Your task to perform on an android device: all mails in gmail Image 0: 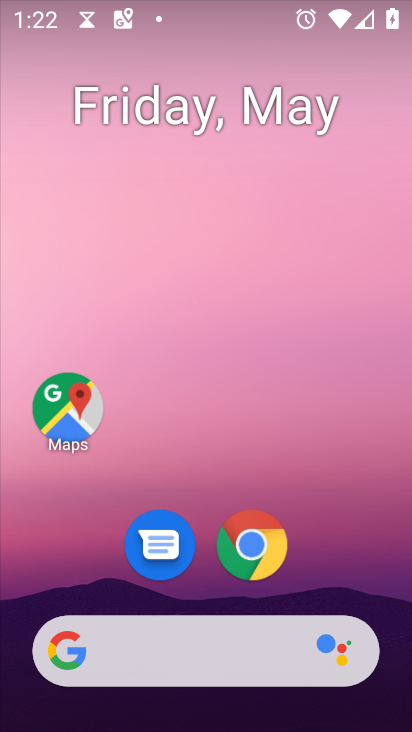
Step 0: drag from (323, 576) to (328, 133)
Your task to perform on an android device: all mails in gmail Image 1: 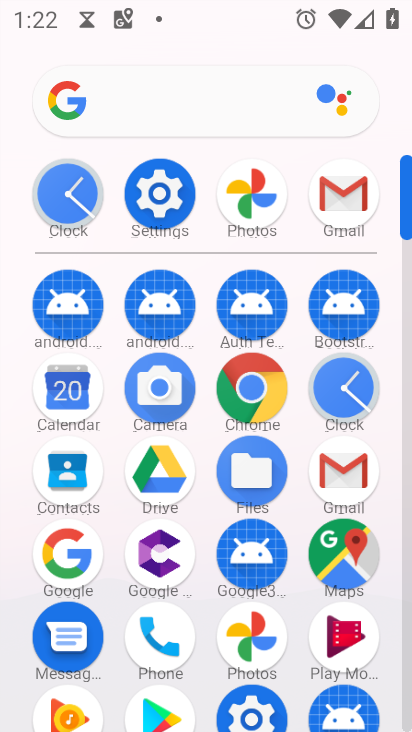
Step 1: click (341, 463)
Your task to perform on an android device: all mails in gmail Image 2: 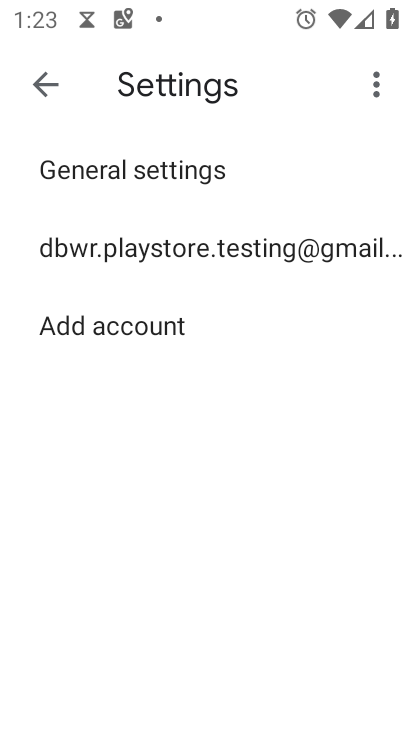
Step 2: click (47, 86)
Your task to perform on an android device: all mails in gmail Image 3: 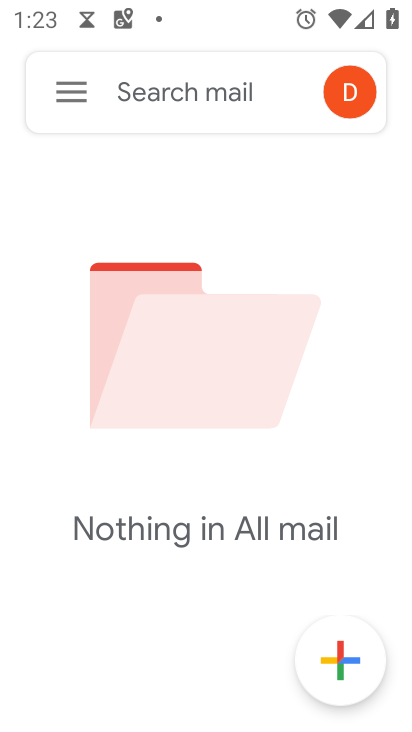
Step 3: click (70, 95)
Your task to perform on an android device: all mails in gmail Image 4: 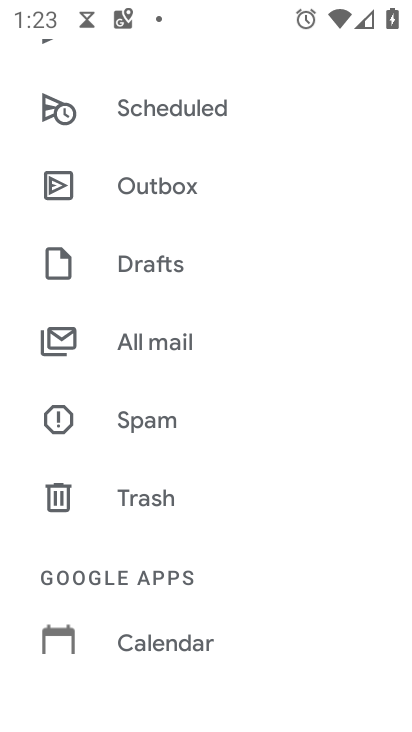
Step 4: click (141, 338)
Your task to perform on an android device: all mails in gmail Image 5: 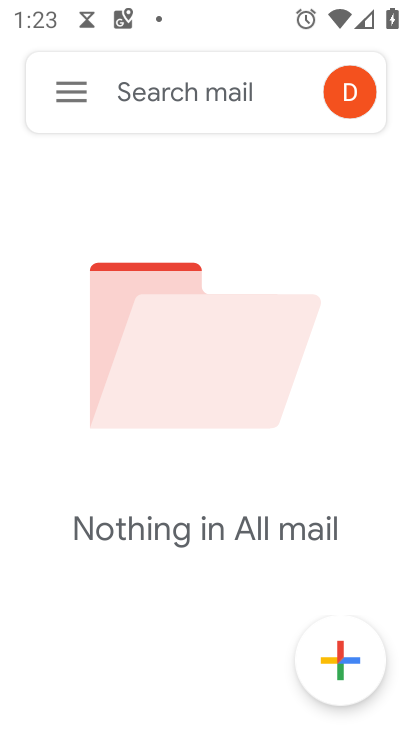
Step 5: task complete